Your task to perform on an android device: check battery use Image 0: 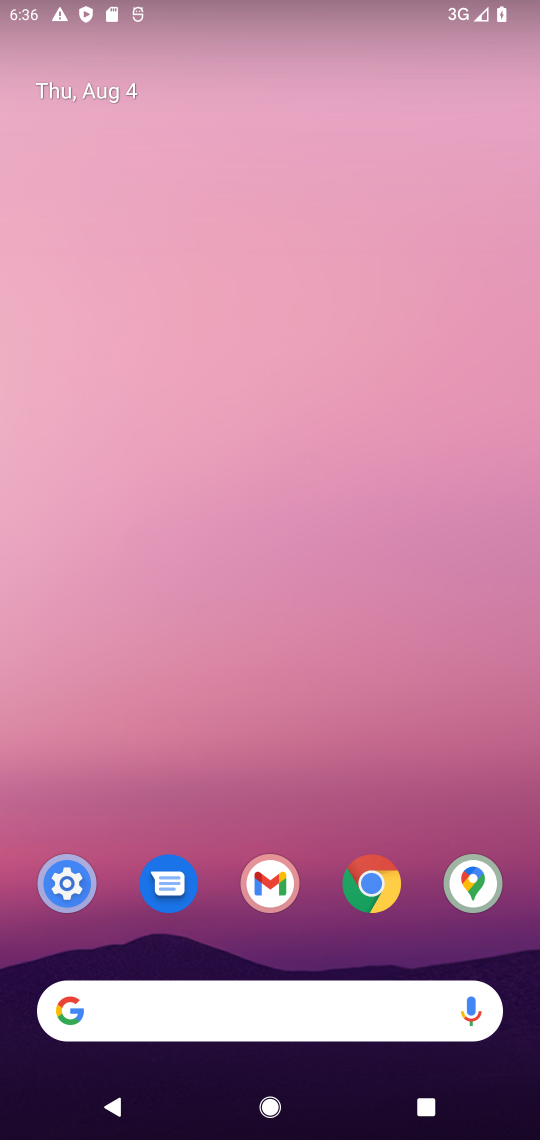
Step 0: click (69, 894)
Your task to perform on an android device: check battery use Image 1: 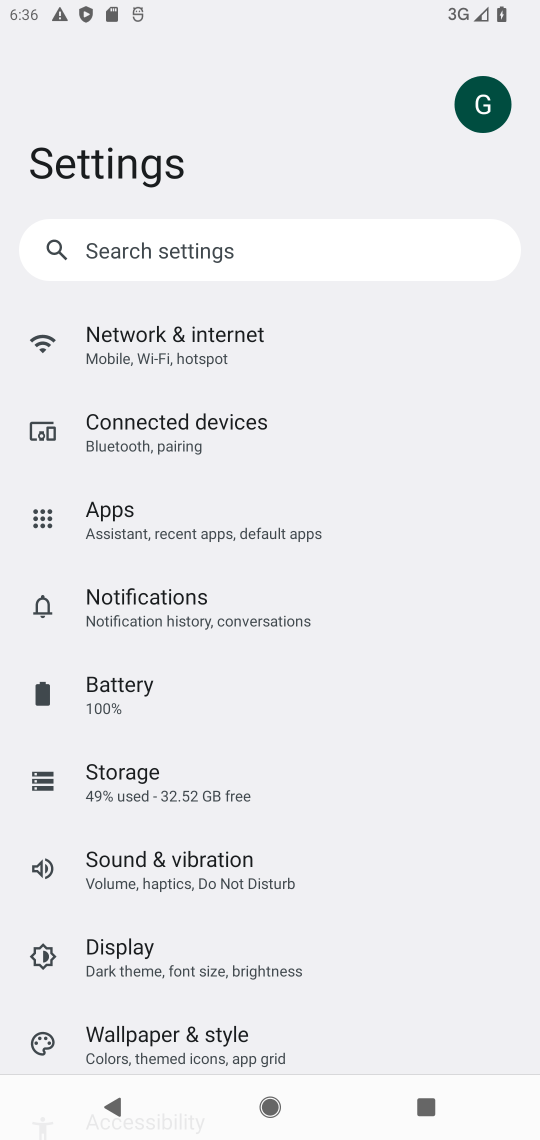
Step 1: click (161, 709)
Your task to perform on an android device: check battery use Image 2: 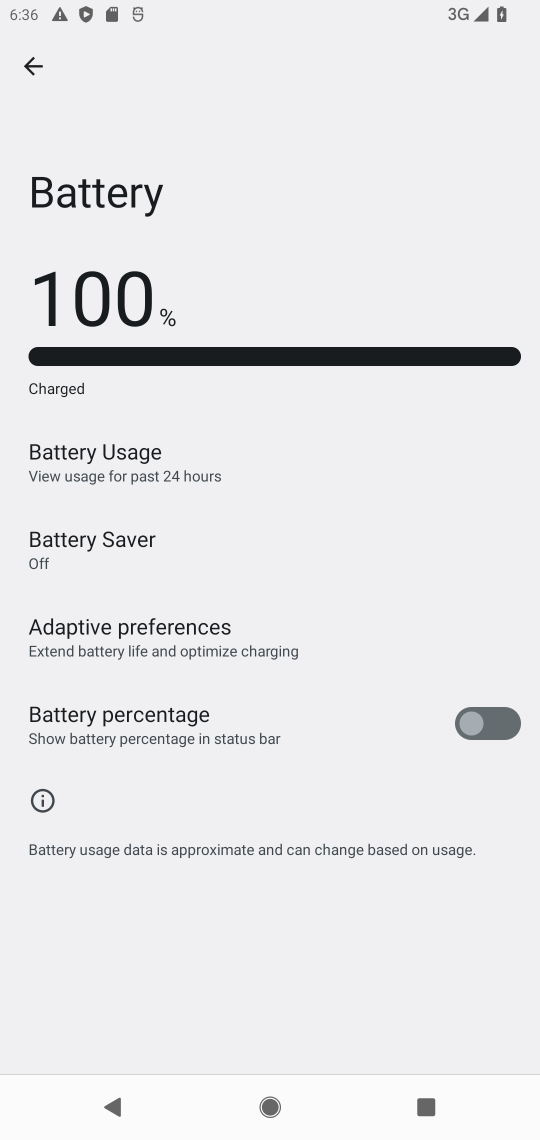
Step 2: click (236, 479)
Your task to perform on an android device: check battery use Image 3: 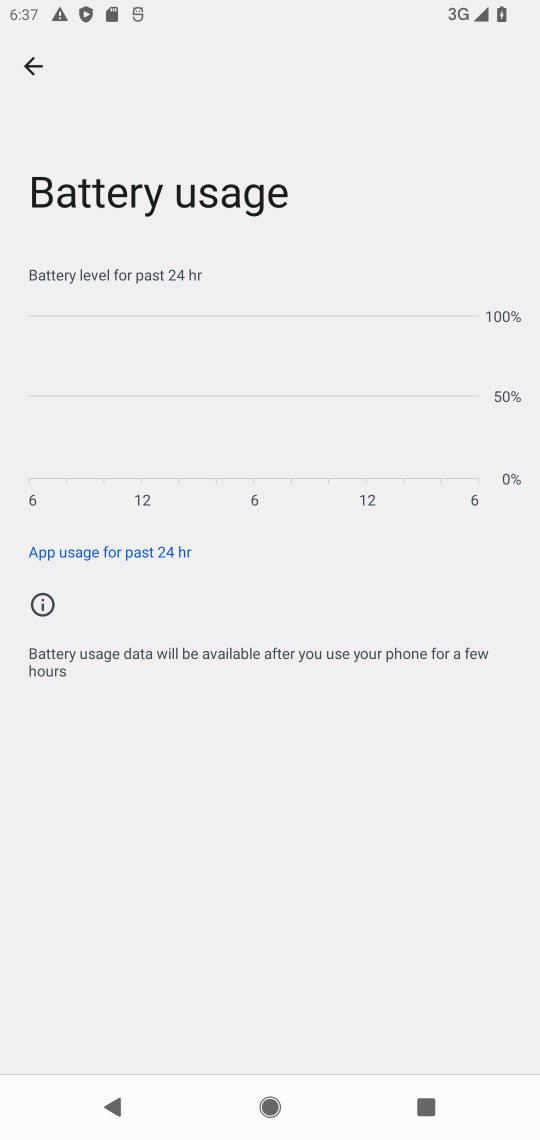
Step 3: task complete